Your task to perform on an android device: Search for "macbook pro" on bestbuy, select the first entry, add it to the cart, then select checkout. Image 0: 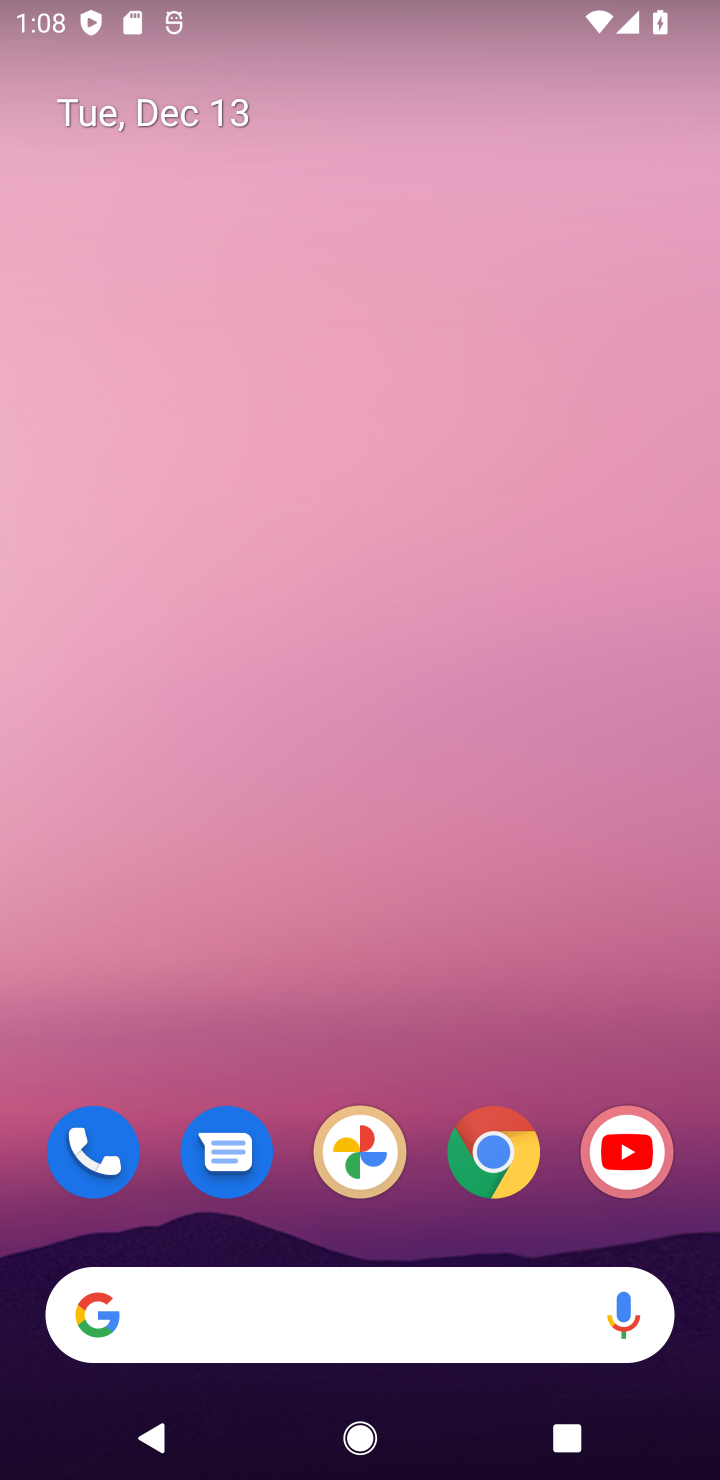
Step 0: drag from (308, 1286) to (310, 0)
Your task to perform on an android device: Search for "macbook pro" on bestbuy, select the first entry, add it to the cart, then select checkout. Image 1: 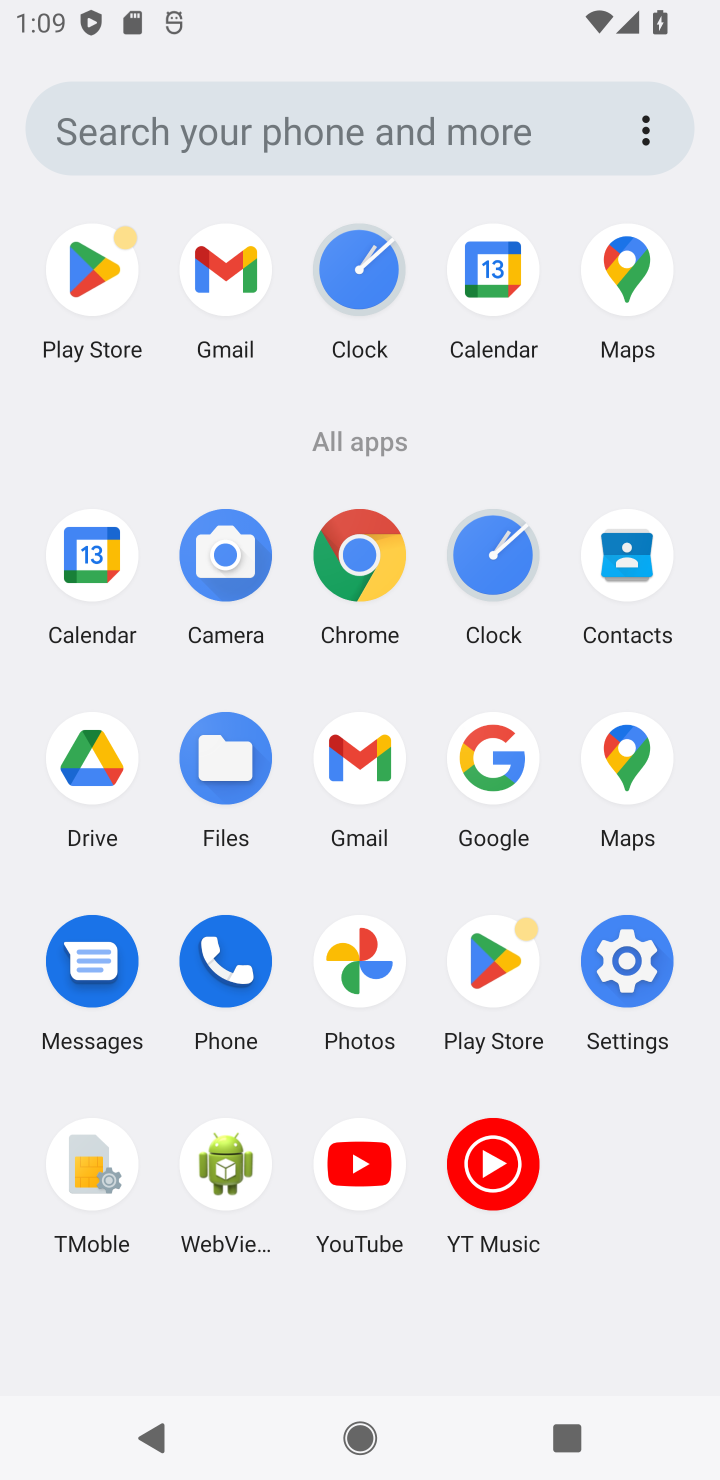
Step 1: click (486, 770)
Your task to perform on an android device: Search for "macbook pro" on bestbuy, select the first entry, add it to the cart, then select checkout. Image 2: 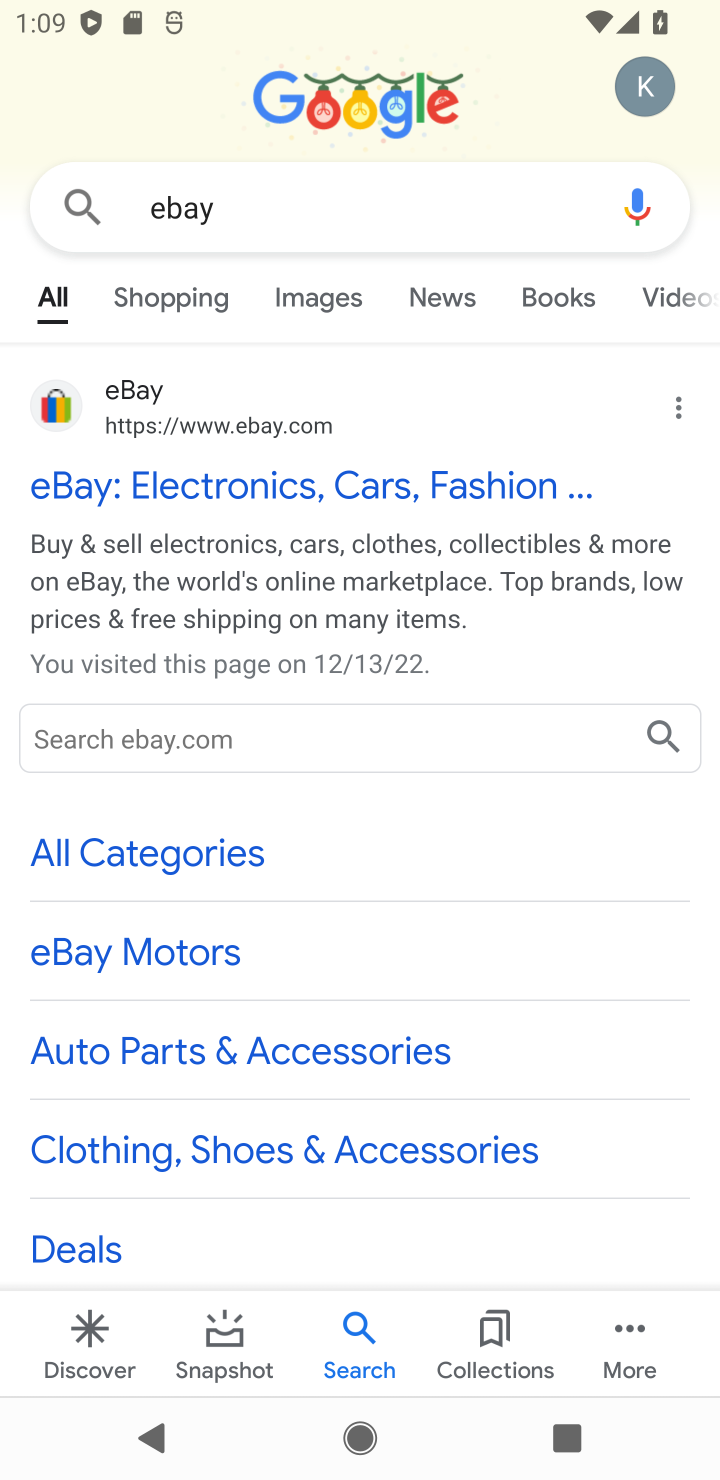
Step 2: click (170, 205)
Your task to perform on an android device: Search for "macbook pro" on bestbuy, select the first entry, add it to the cart, then select checkout. Image 3: 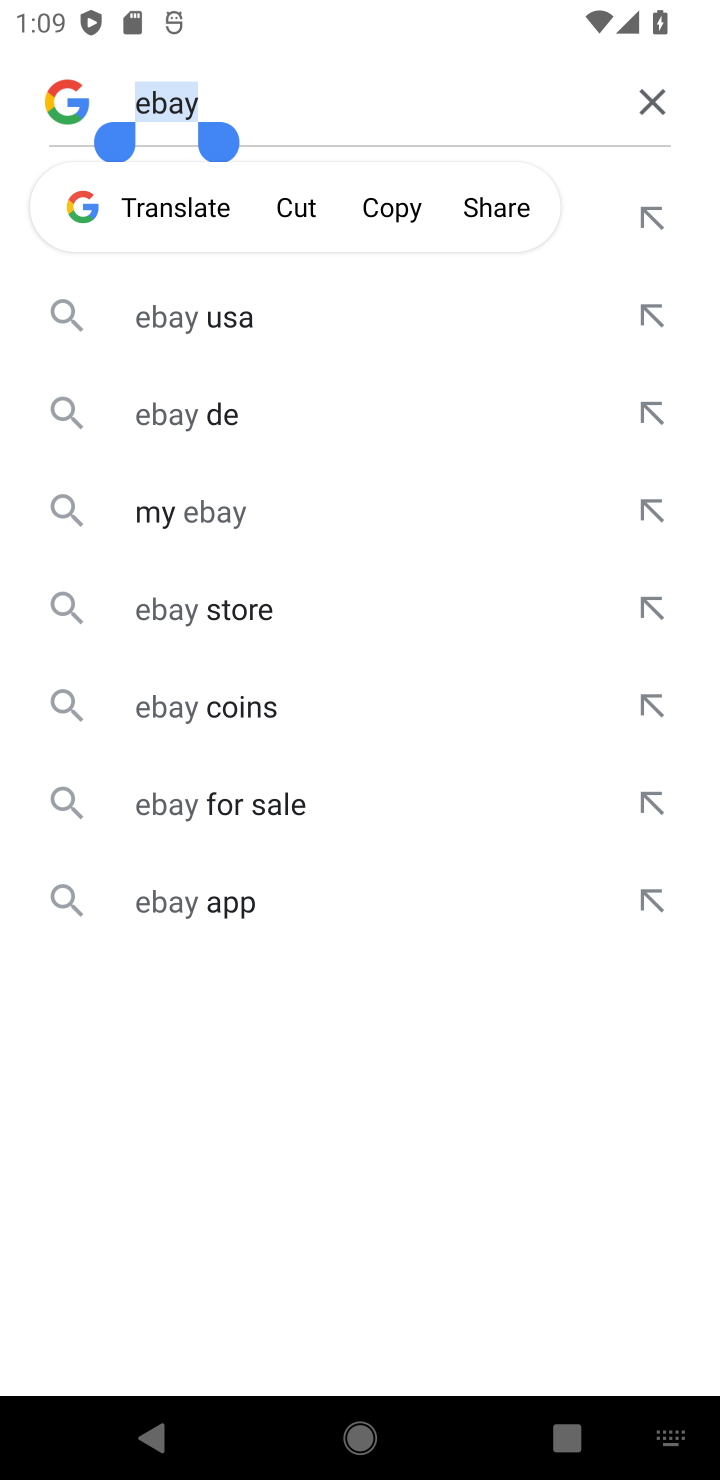
Step 3: click (632, 105)
Your task to perform on an android device: Search for "macbook pro" on bestbuy, select the first entry, add it to the cart, then select checkout. Image 4: 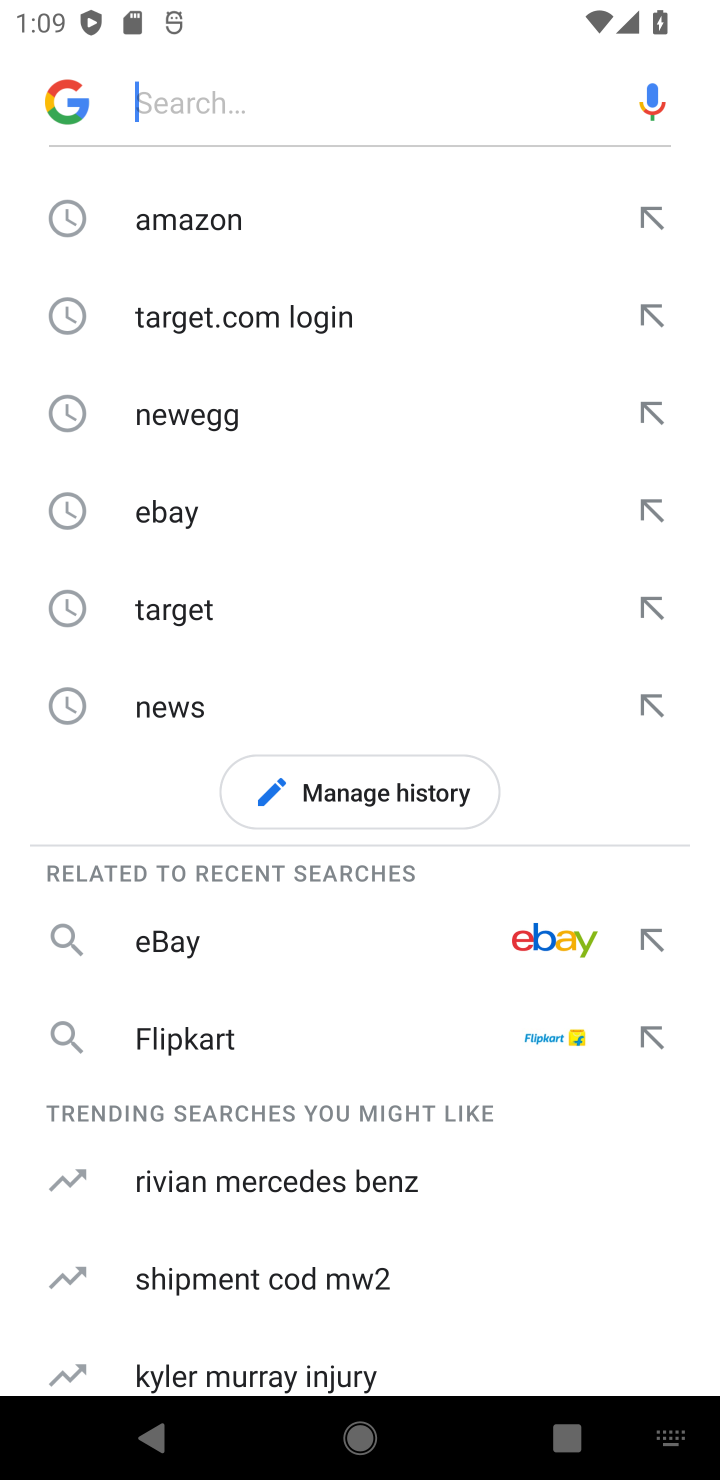
Step 4: type "bestbuy"
Your task to perform on an android device: Search for "macbook pro" on bestbuy, select the first entry, add it to the cart, then select checkout. Image 5: 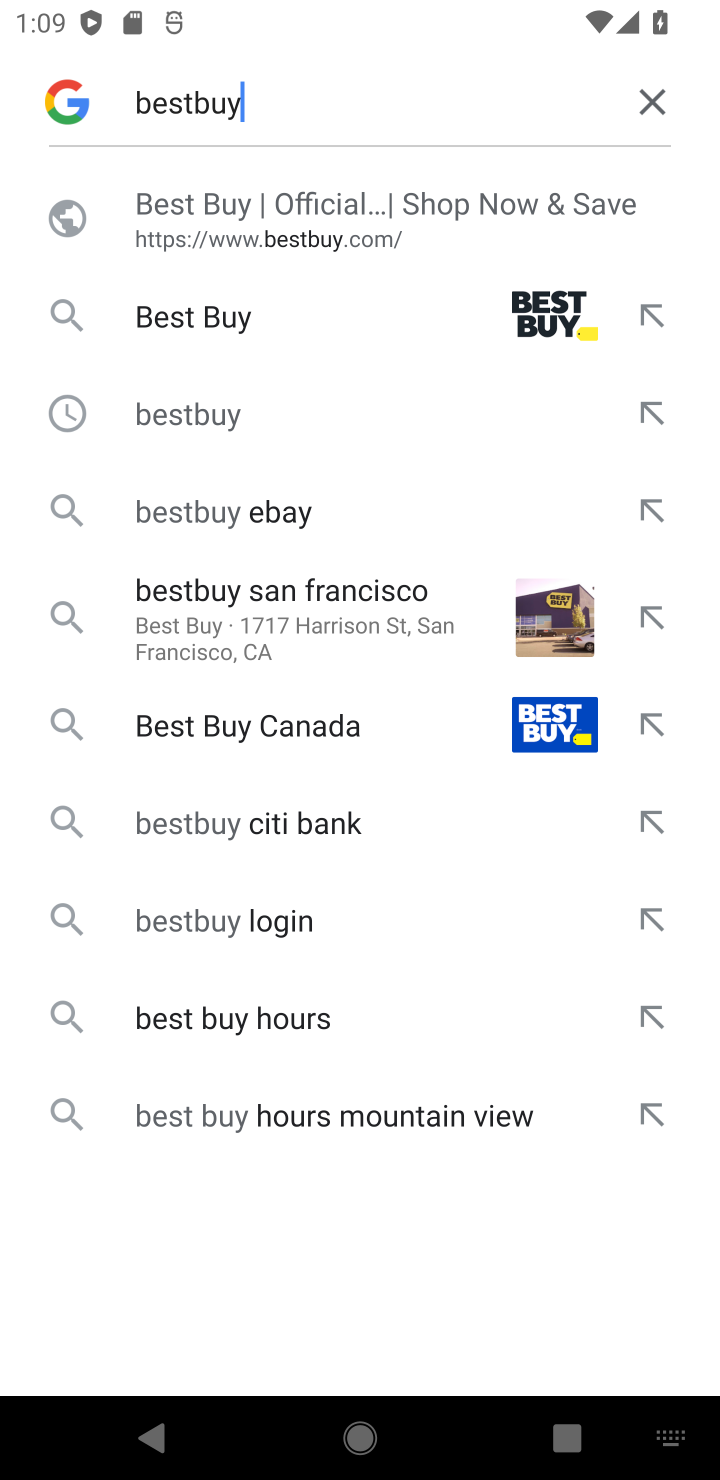
Step 5: click (161, 204)
Your task to perform on an android device: Search for "macbook pro" on bestbuy, select the first entry, add it to the cart, then select checkout. Image 6: 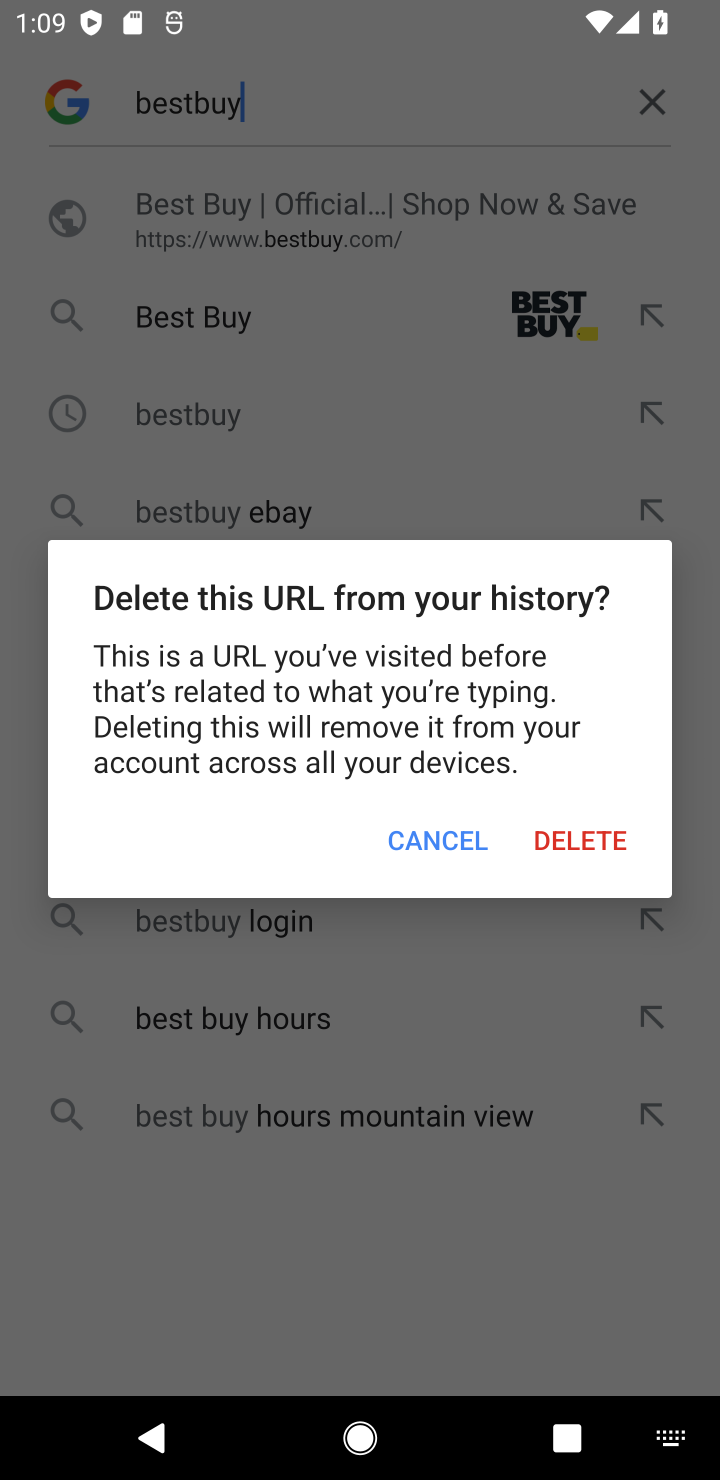
Step 6: click (439, 845)
Your task to perform on an android device: Search for "macbook pro" on bestbuy, select the first entry, add it to the cart, then select checkout. Image 7: 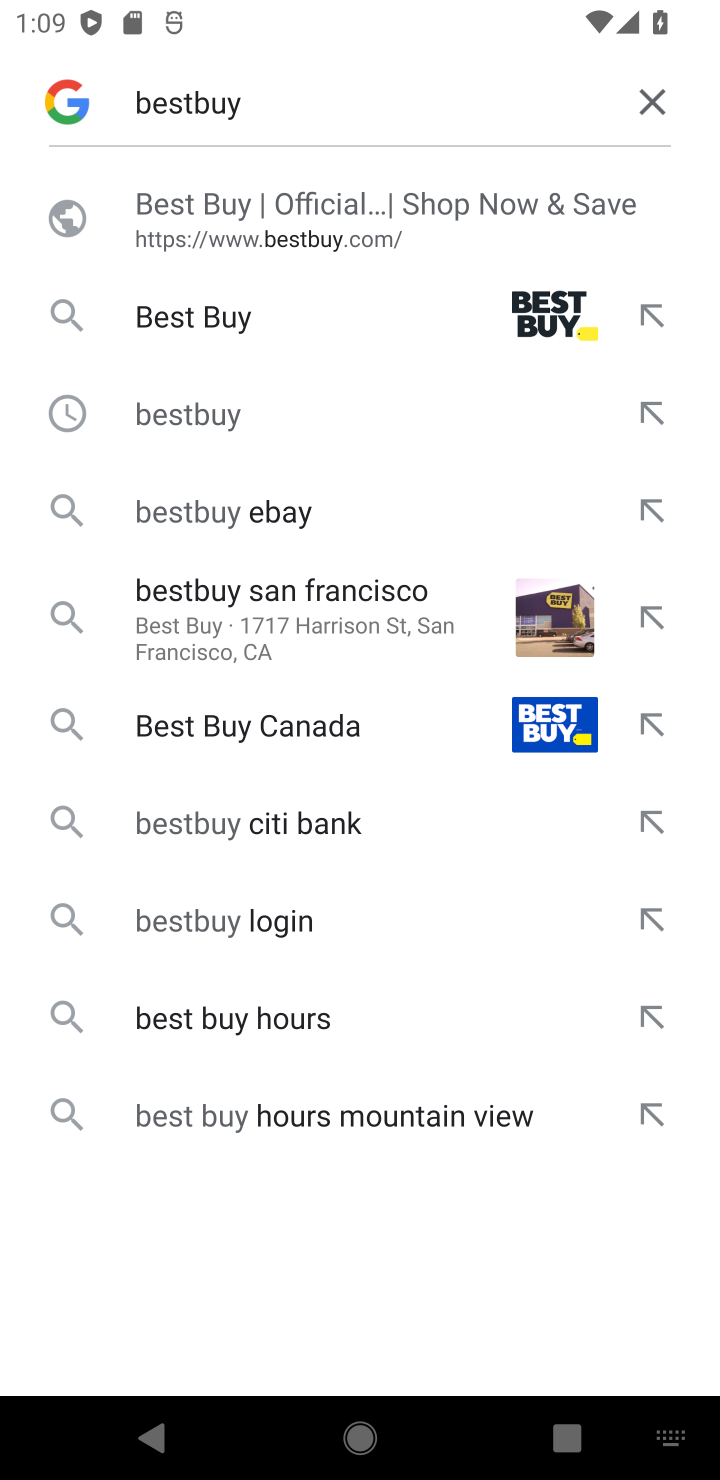
Step 7: click (221, 217)
Your task to perform on an android device: Search for "macbook pro" on bestbuy, select the first entry, add it to the cart, then select checkout. Image 8: 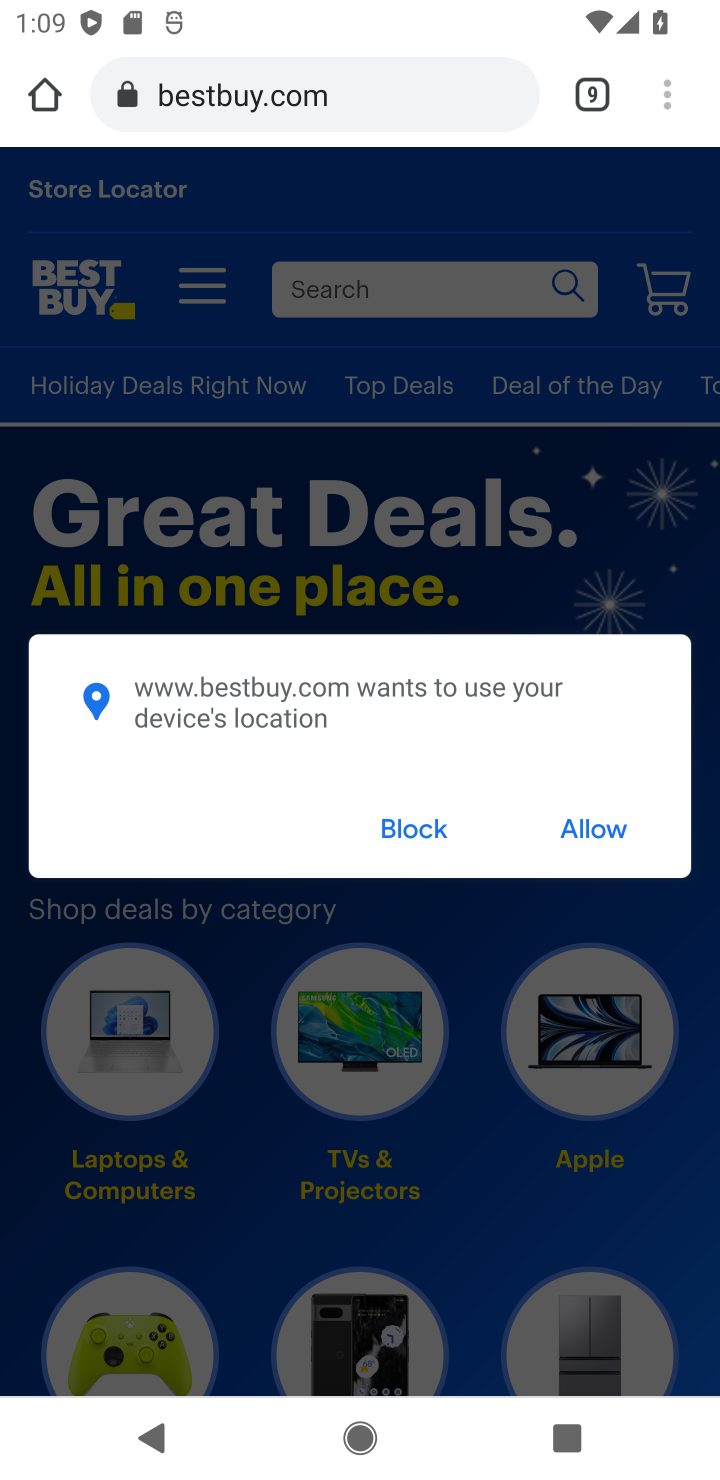
Step 8: click (591, 830)
Your task to perform on an android device: Search for "macbook pro" on bestbuy, select the first entry, add it to the cart, then select checkout. Image 9: 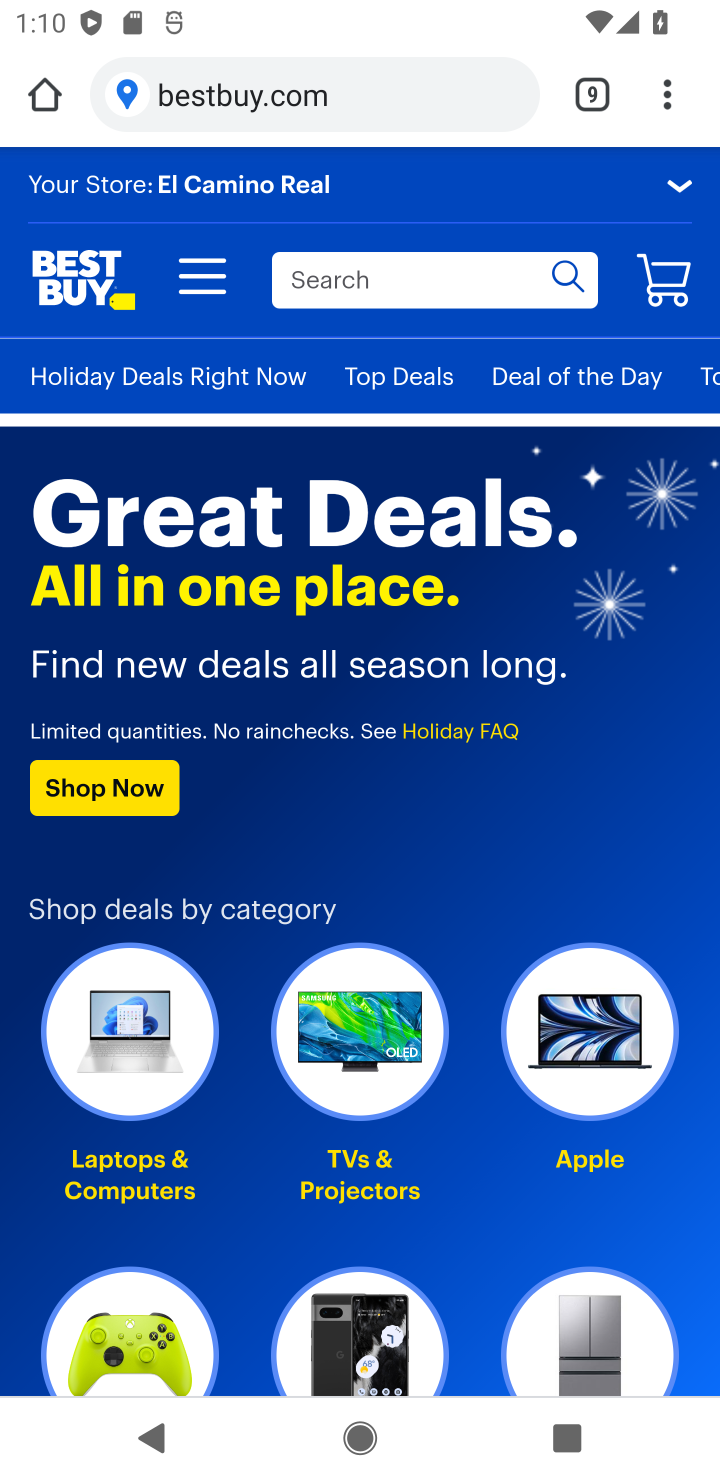
Step 9: click (328, 290)
Your task to perform on an android device: Search for "macbook pro" on bestbuy, select the first entry, add it to the cart, then select checkout. Image 10: 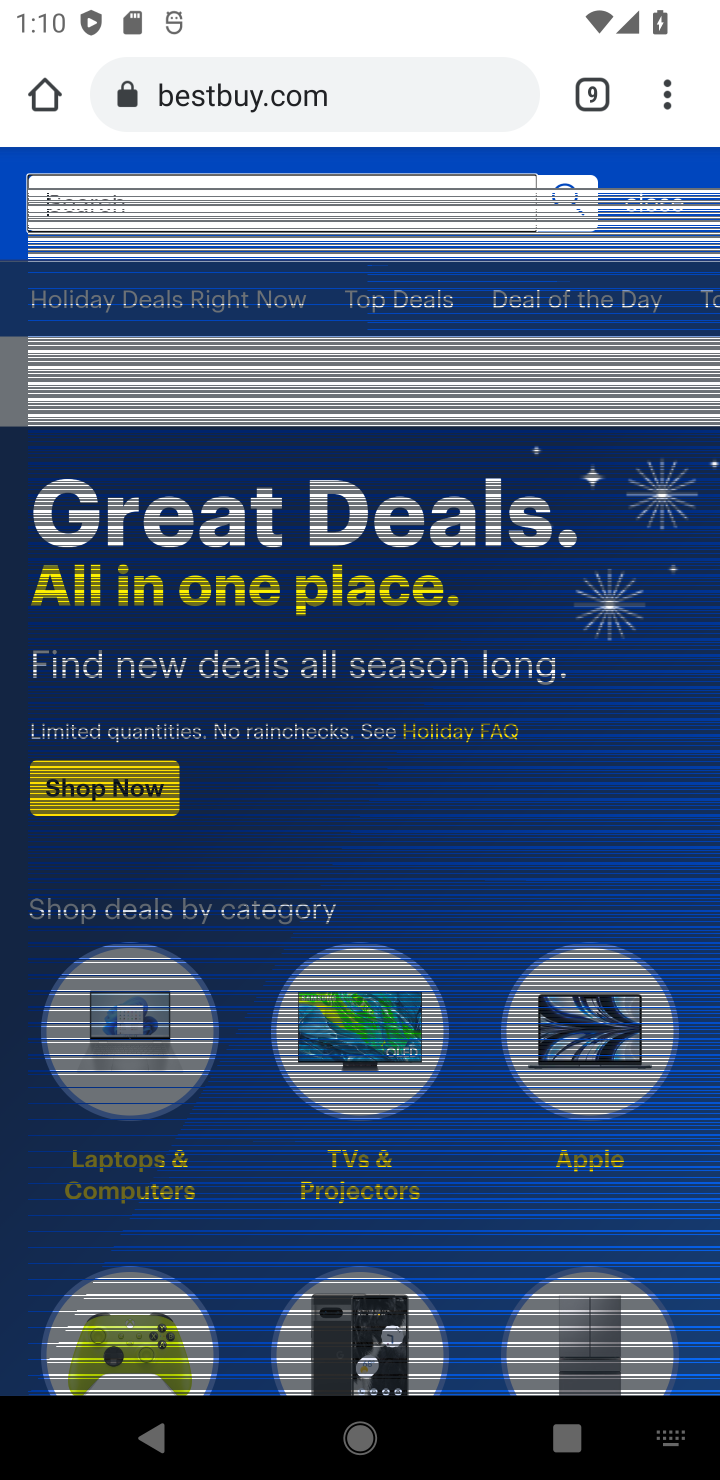
Step 10: type "macbook pro"
Your task to perform on an android device: Search for "macbook pro" on bestbuy, select the first entry, add it to the cart, then select checkout. Image 11: 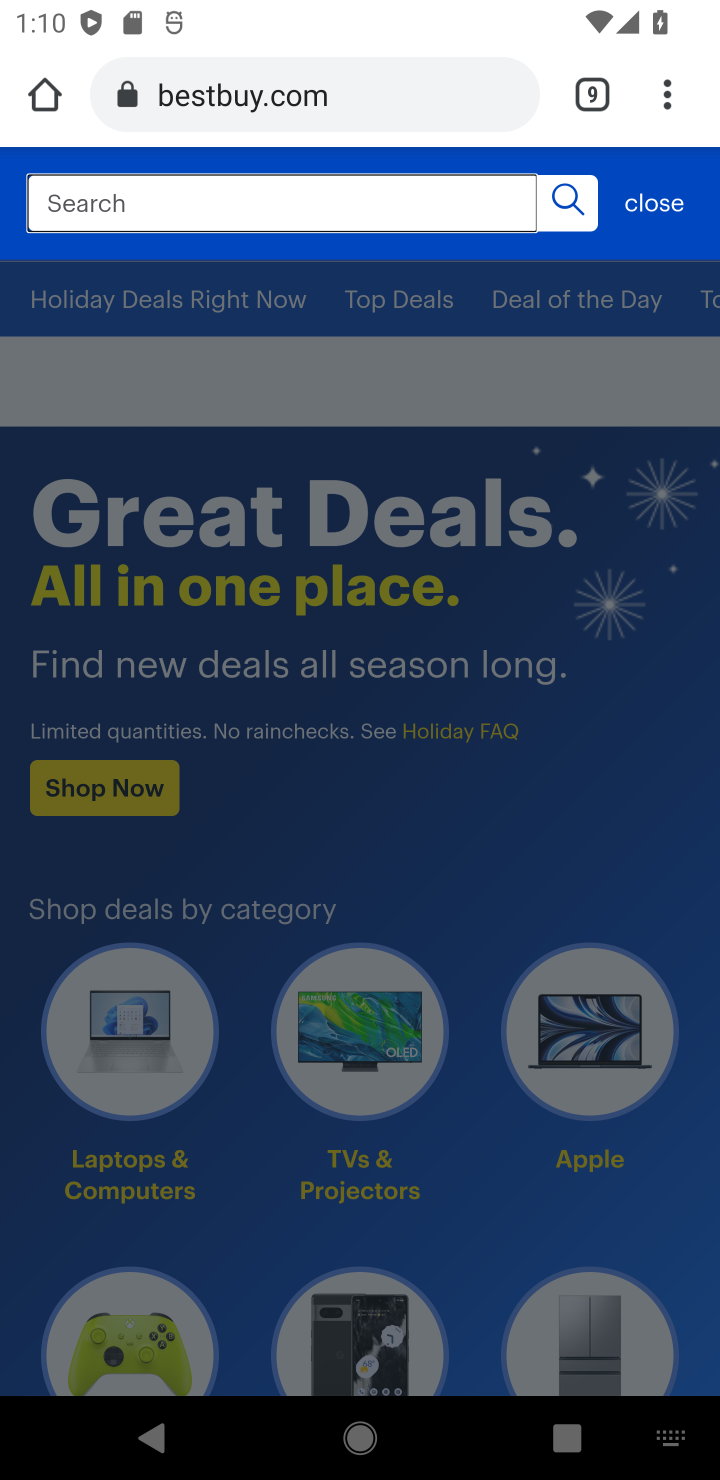
Step 11: click (550, 204)
Your task to perform on an android device: Search for "macbook pro" on bestbuy, select the first entry, add it to the cart, then select checkout. Image 12: 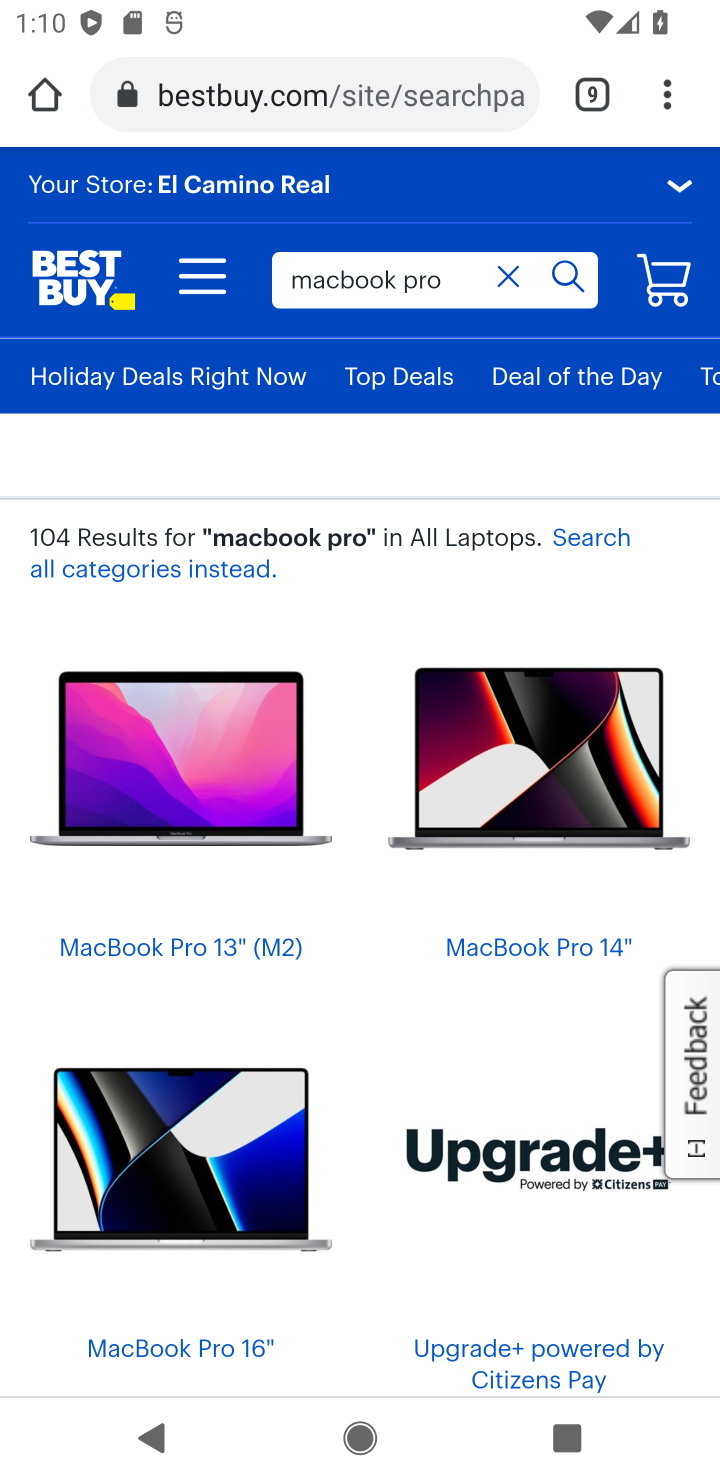
Step 12: click (317, 268)
Your task to perform on an android device: Search for "macbook pro" on bestbuy, select the first entry, add it to the cart, then select checkout. Image 13: 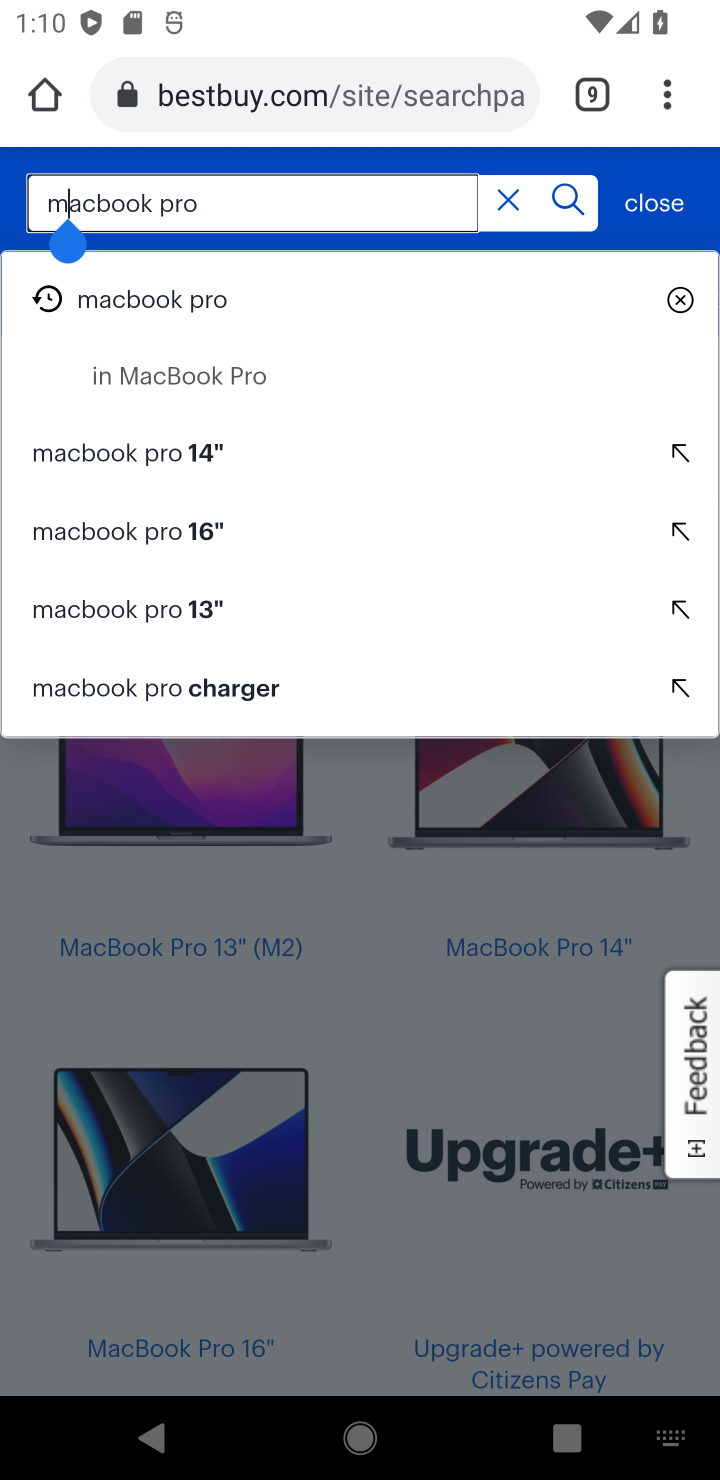
Step 13: click (567, 198)
Your task to perform on an android device: Search for "macbook pro" on bestbuy, select the first entry, add it to the cart, then select checkout. Image 14: 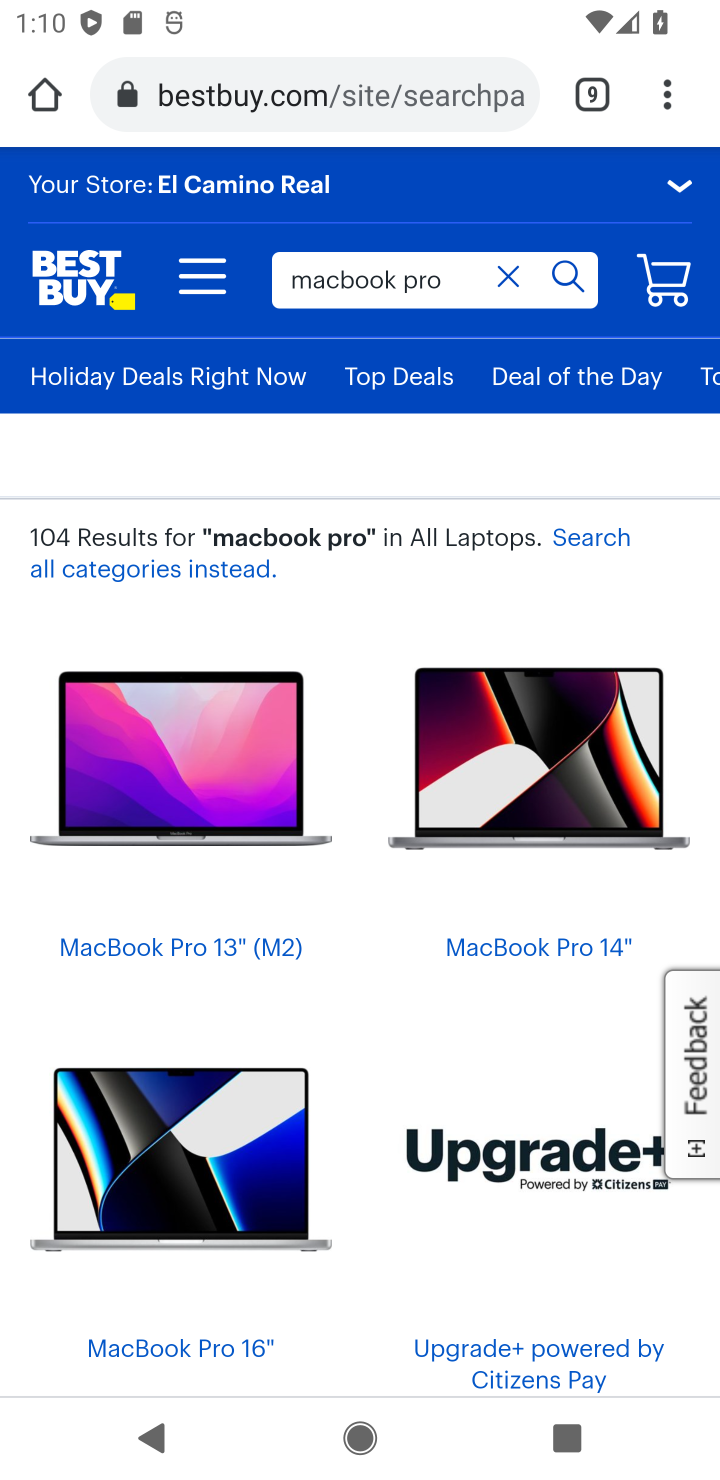
Step 14: drag from (275, 847) to (275, 526)
Your task to perform on an android device: Search for "macbook pro" on bestbuy, select the first entry, add it to the cart, then select checkout. Image 15: 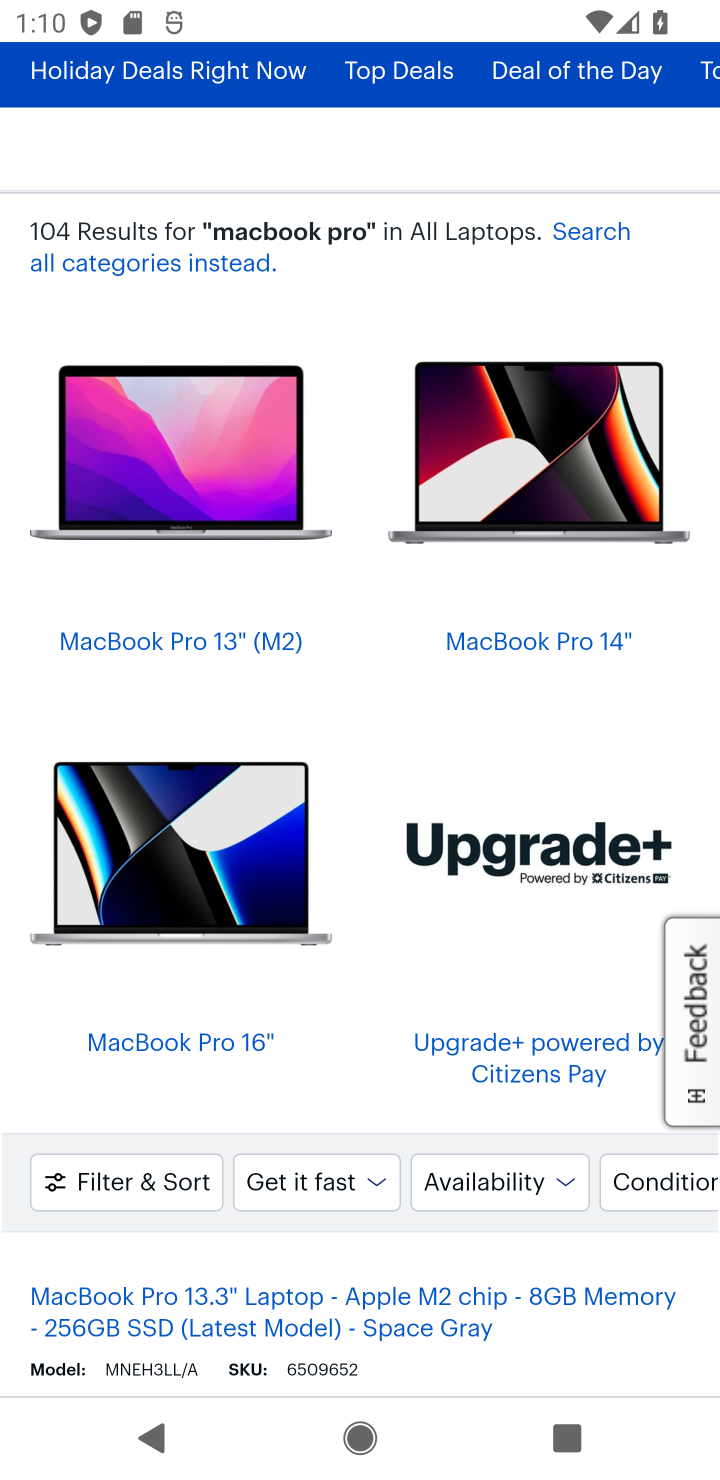
Step 15: click (196, 466)
Your task to perform on an android device: Search for "macbook pro" on bestbuy, select the first entry, add it to the cart, then select checkout. Image 16: 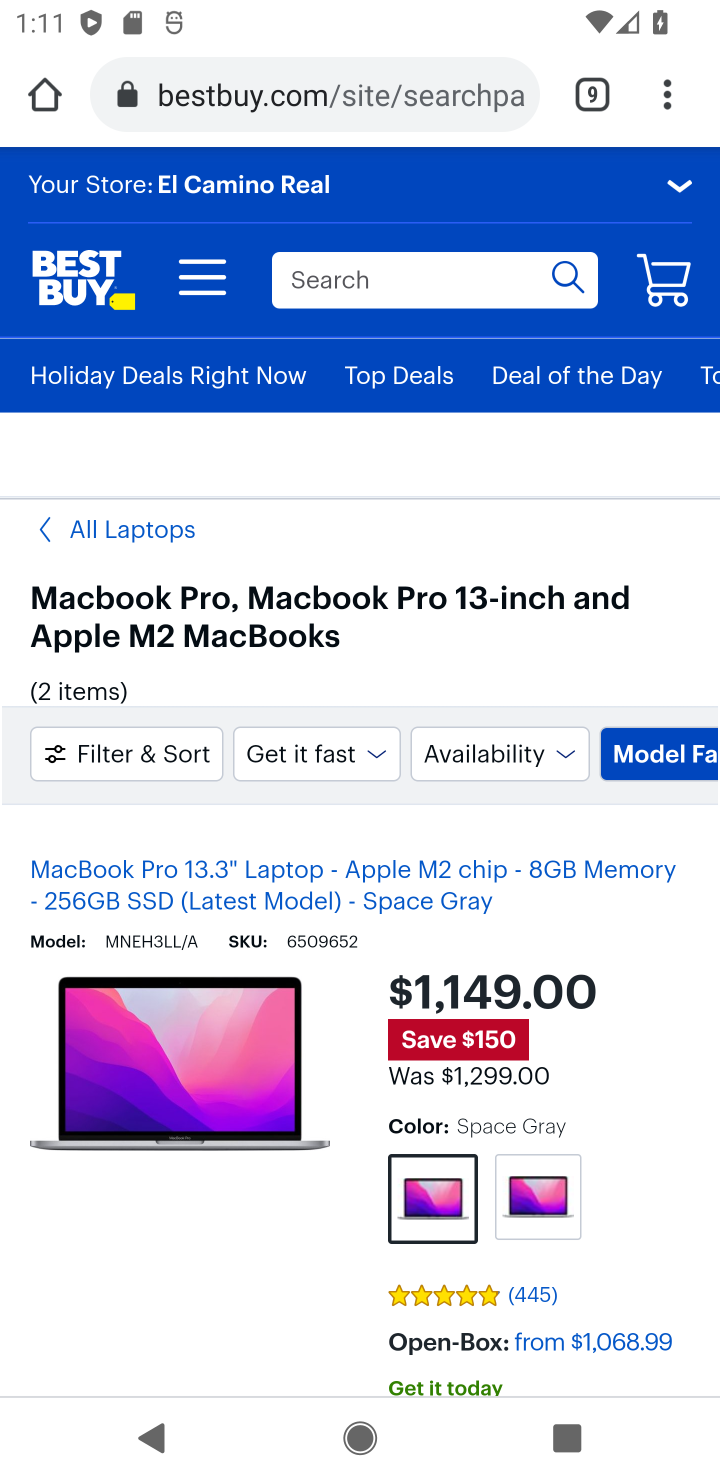
Step 16: drag from (570, 1280) to (543, 636)
Your task to perform on an android device: Search for "macbook pro" on bestbuy, select the first entry, add it to the cart, then select checkout. Image 17: 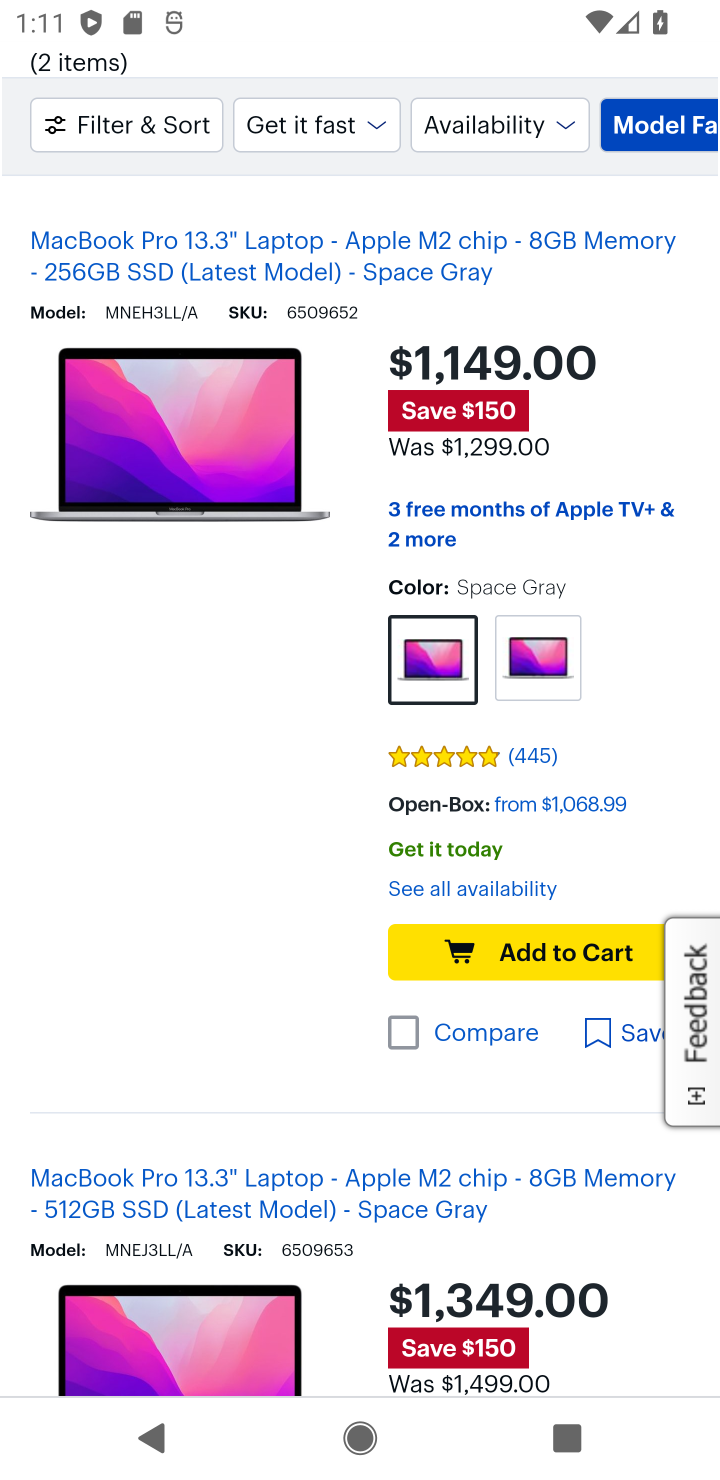
Step 17: click (553, 855)
Your task to perform on an android device: Search for "macbook pro" on bestbuy, select the first entry, add it to the cart, then select checkout. Image 18: 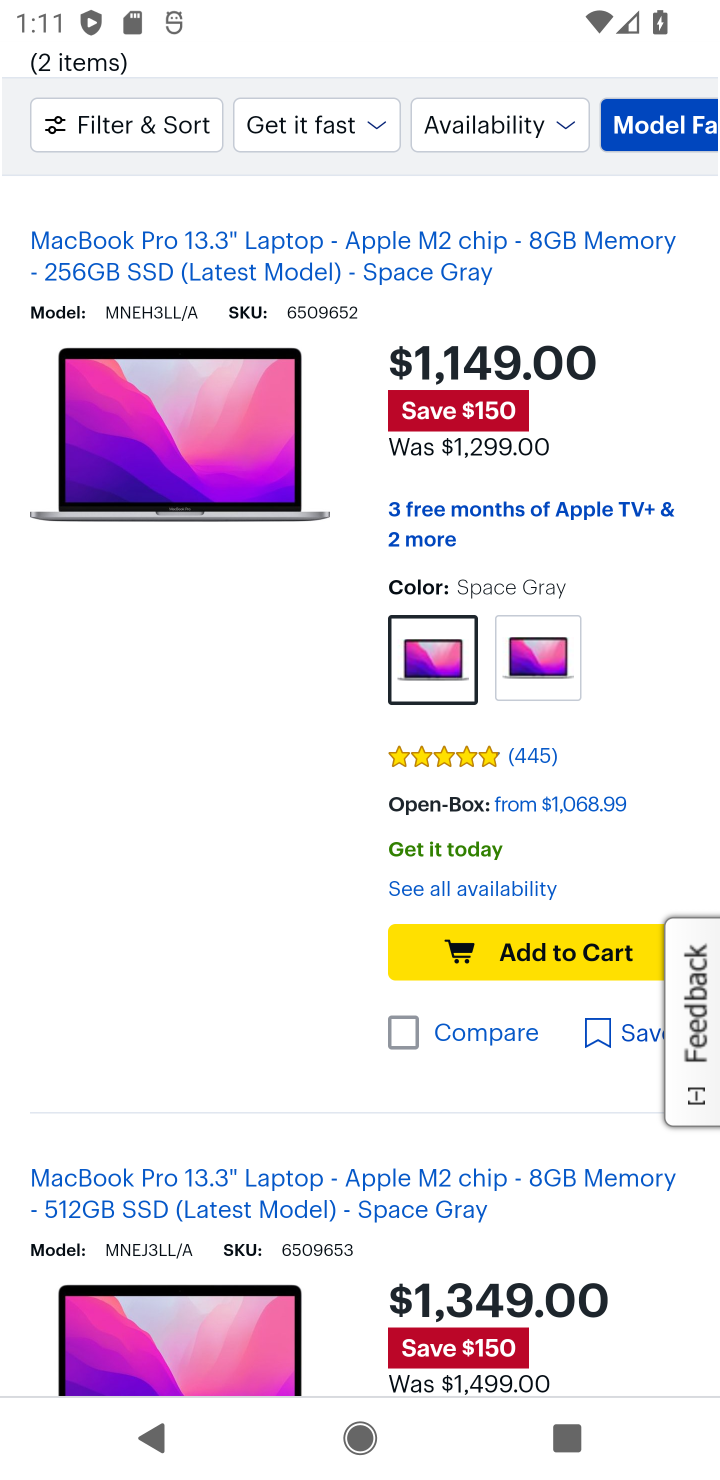
Step 18: click (553, 962)
Your task to perform on an android device: Search for "macbook pro" on bestbuy, select the first entry, add it to the cart, then select checkout. Image 19: 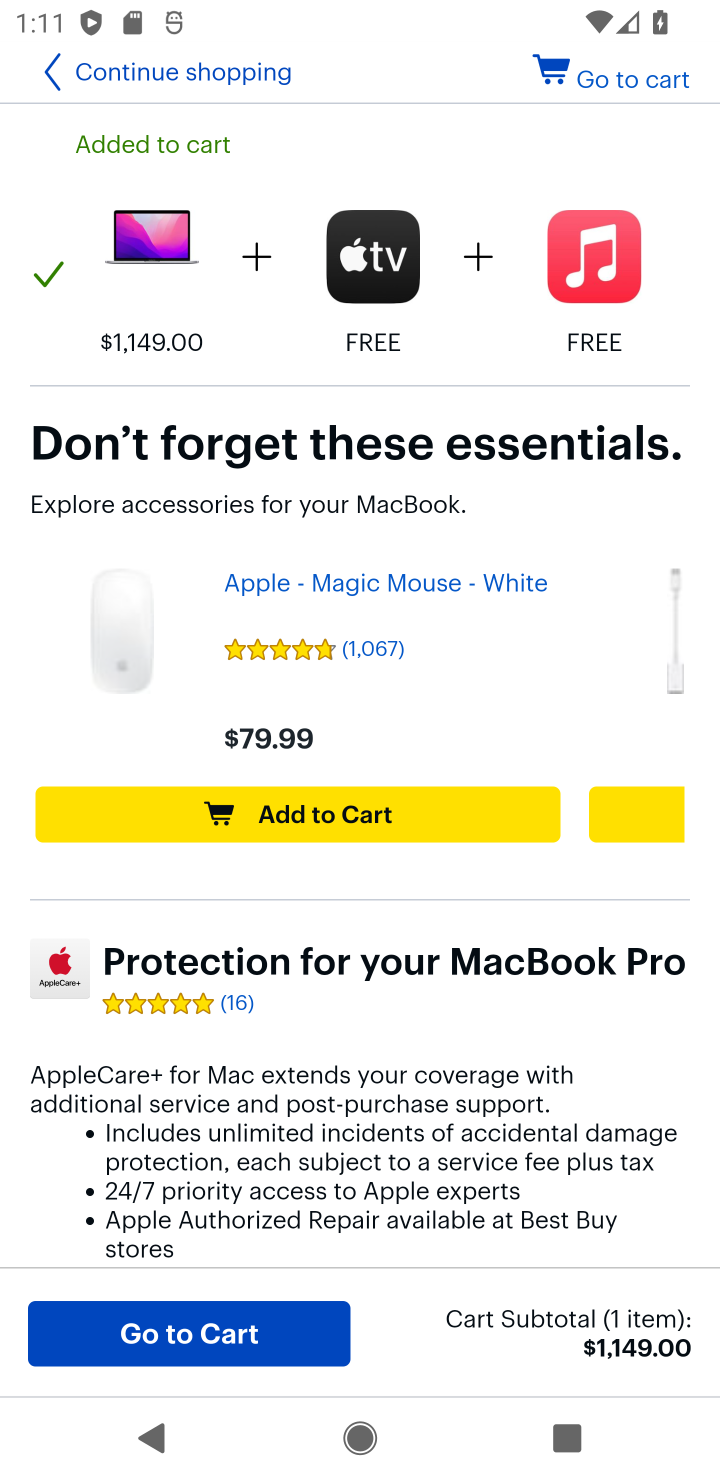
Step 19: click (179, 1348)
Your task to perform on an android device: Search for "macbook pro" on bestbuy, select the first entry, add it to the cart, then select checkout. Image 20: 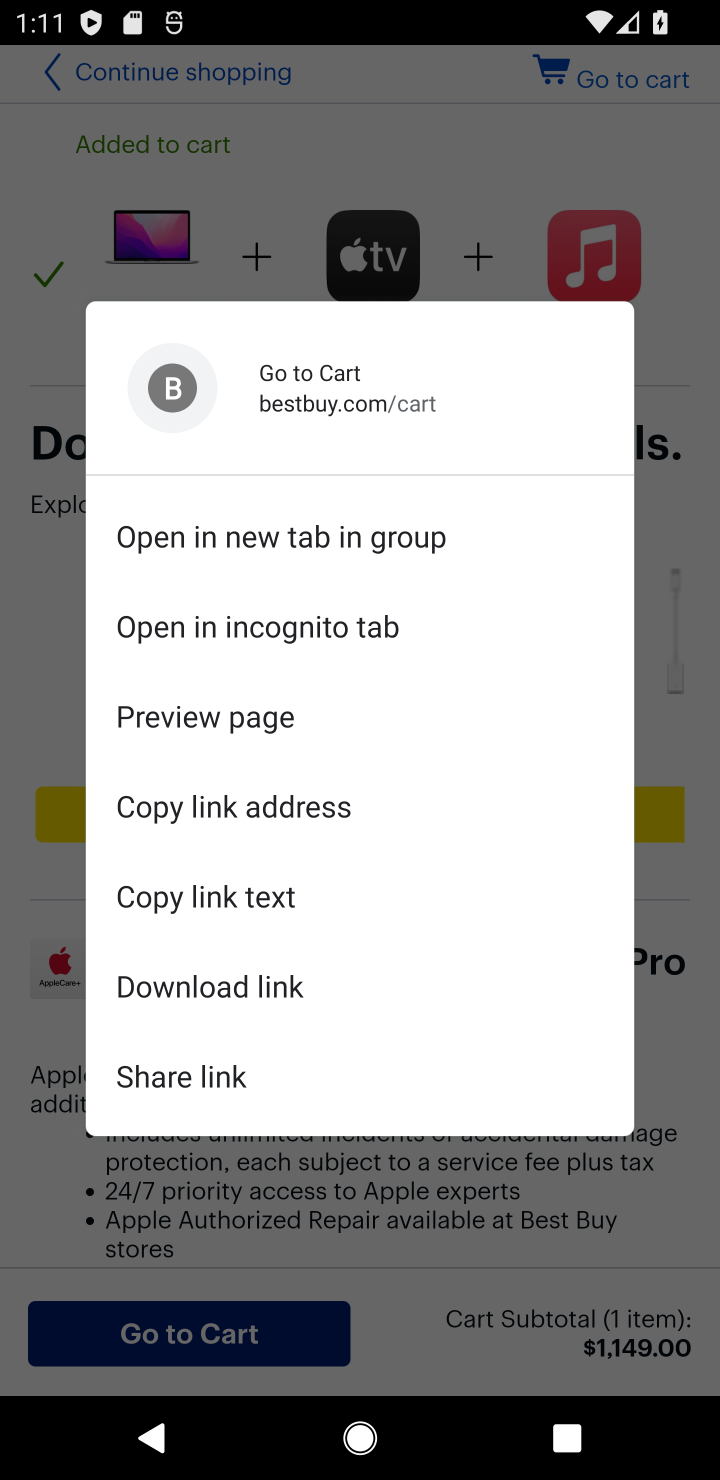
Step 20: click (26, 885)
Your task to perform on an android device: Search for "macbook pro" on bestbuy, select the first entry, add it to the cart, then select checkout. Image 21: 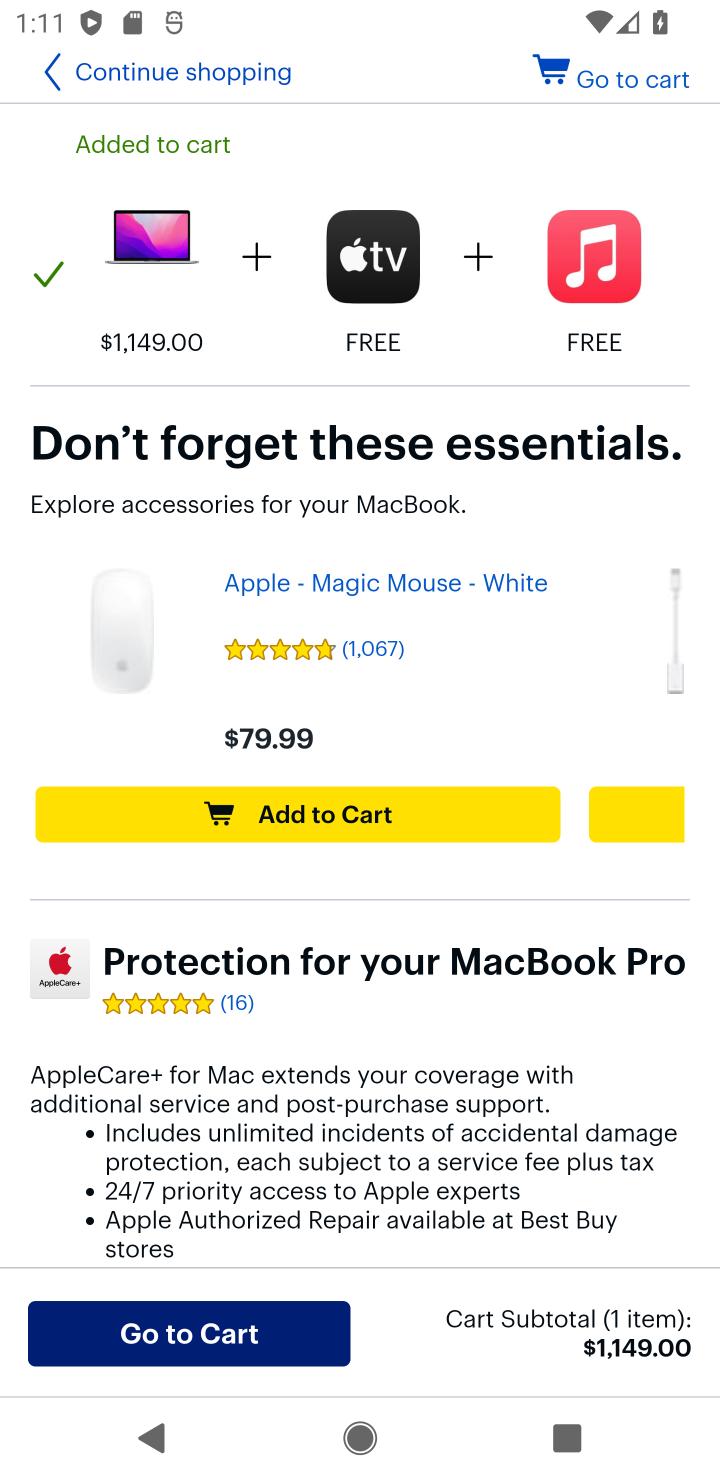
Step 21: click (147, 1337)
Your task to perform on an android device: Search for "macbook pro" on bestbuy, select the first entry, add it to the cart, then select checkout. Image 22: 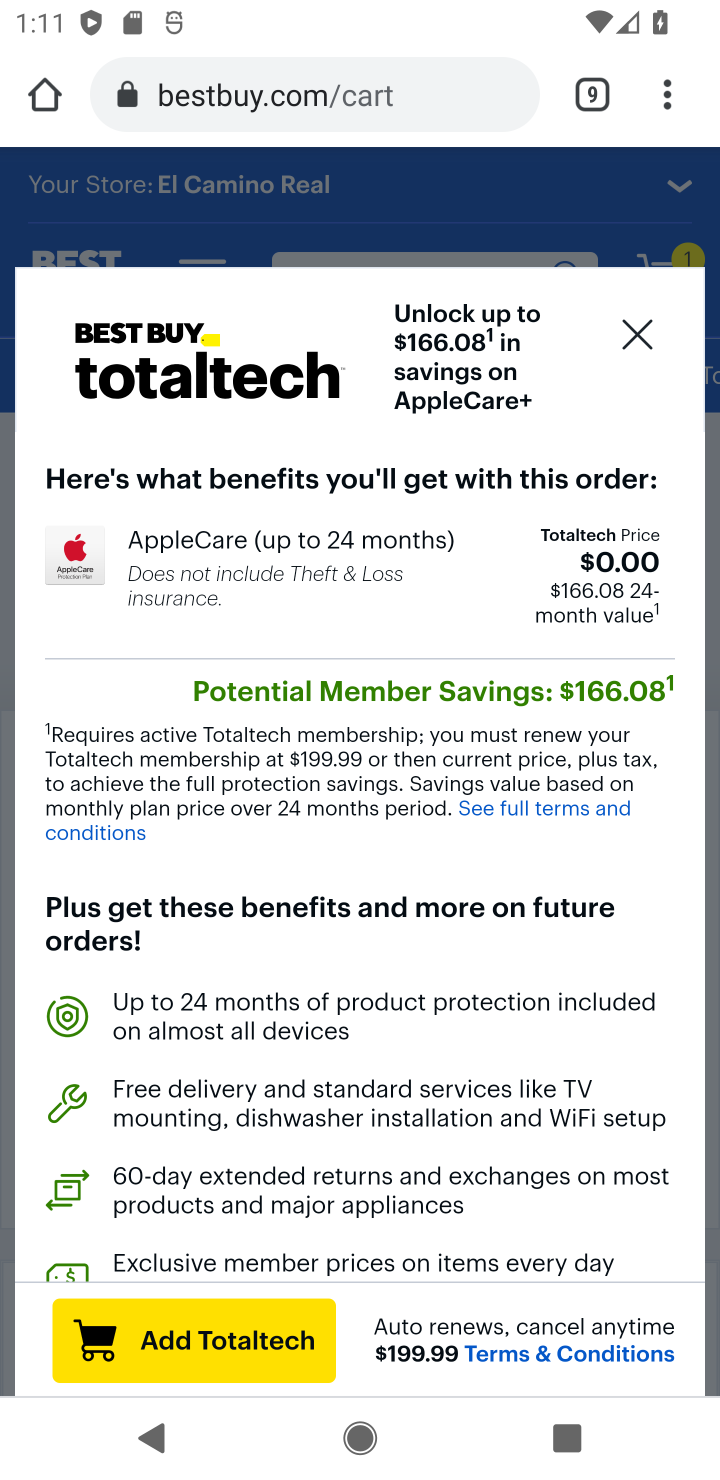
Step 22: click (626, 334)
Your task to perform on an android device: Search for "macbook pro" on bestbuy, select the first entry, add it to the cart, then select checkout. Image 23: 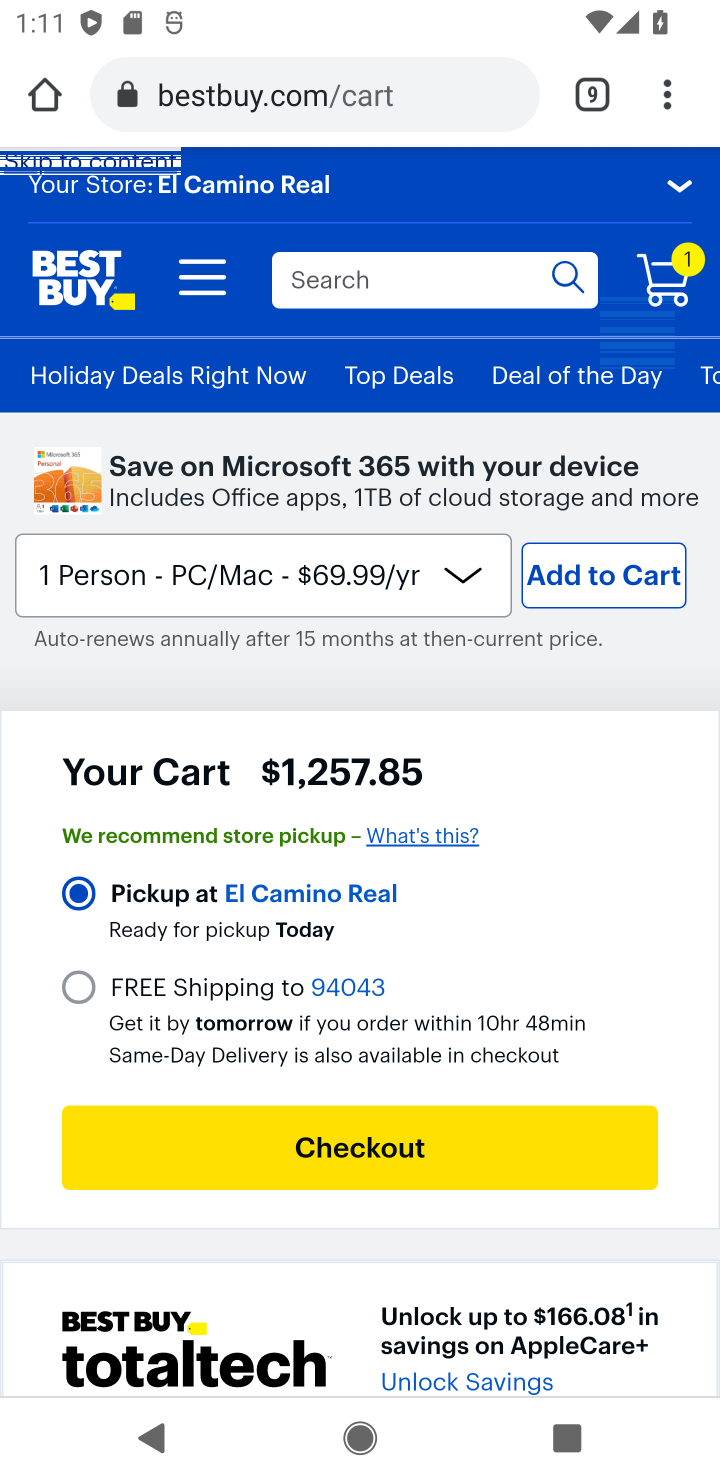
Step 23: click (384, 1152)
Your task to perform on an android device: Search for "macbook pro" on bestbuy, select the first entry, add it to the cart, then select checkout. Image 24: 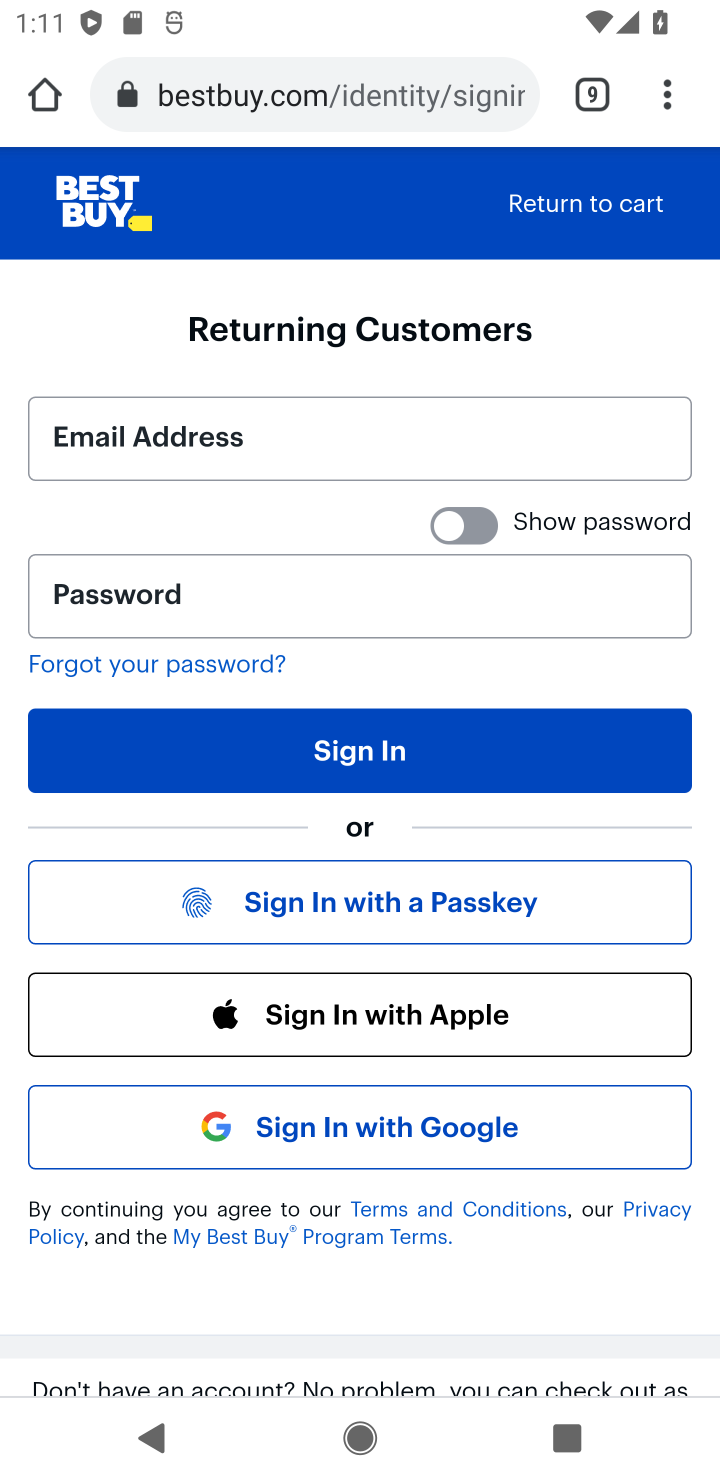
Step 24: task complete